Your task to perform on an android device: turn off airplane mode Image 0: 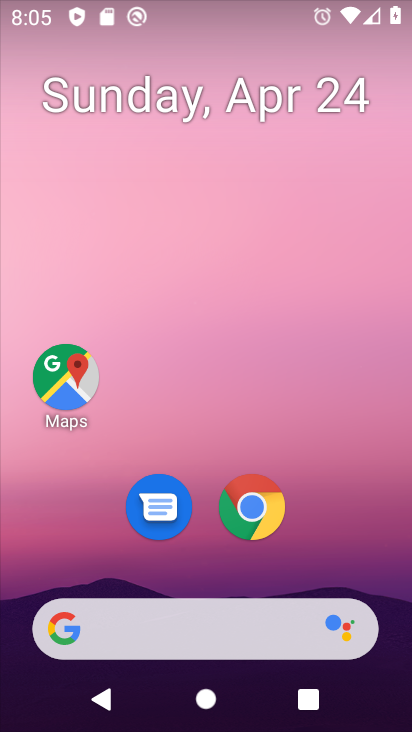
Step 0: drag from (365, 564) to (341, 132)
Your task to perform on an android device: turn off airplane mode Image 1: 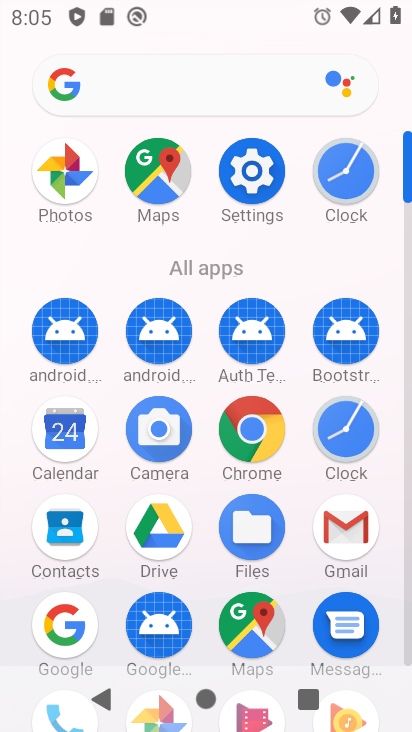
Step 1: click (256, 165)
Your task to perform on an android device: turn off airplane mode Image 2: 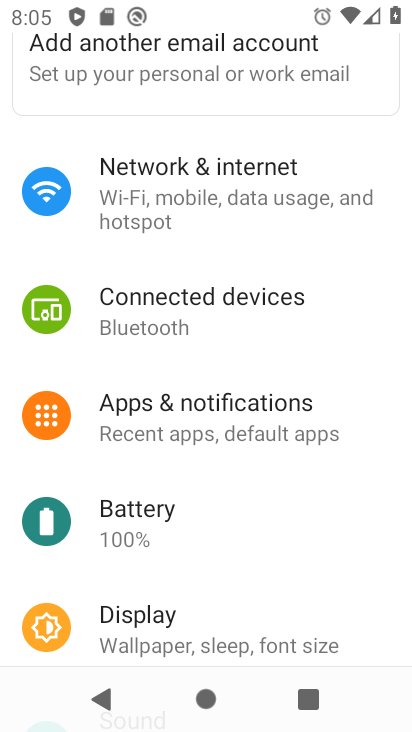
Step 2: click (281, 165)
Your task to perform on an android device: turn off airplane mode Image 3: 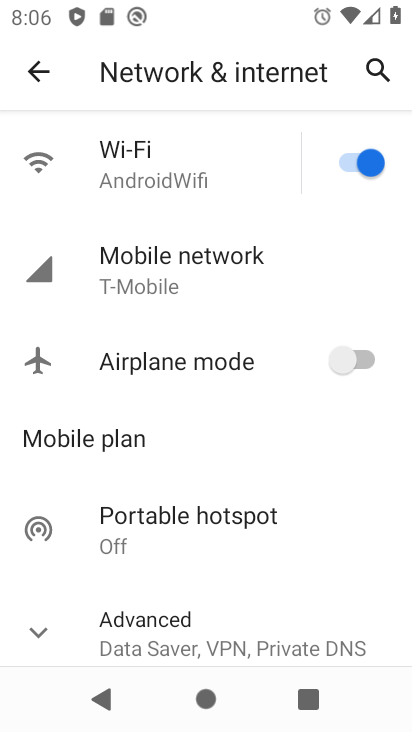
Step 3: task complete